Your task to perform on an android device: set the timer Image 0: 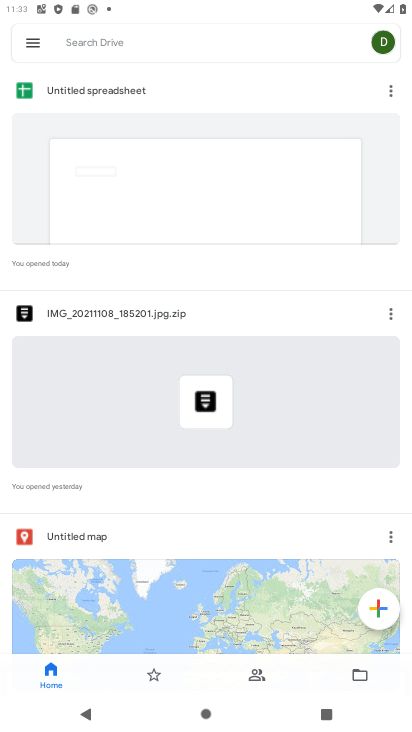
Step 0: press home button
Your task to perform on an android device: set the timer Image 1: 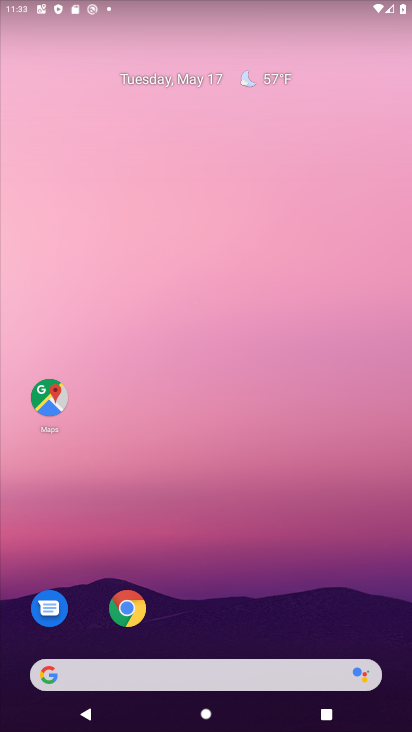
Step 1: drag from (281, 563) to (215, 84)
Your task to perform on an android device: set the timer Image 2: 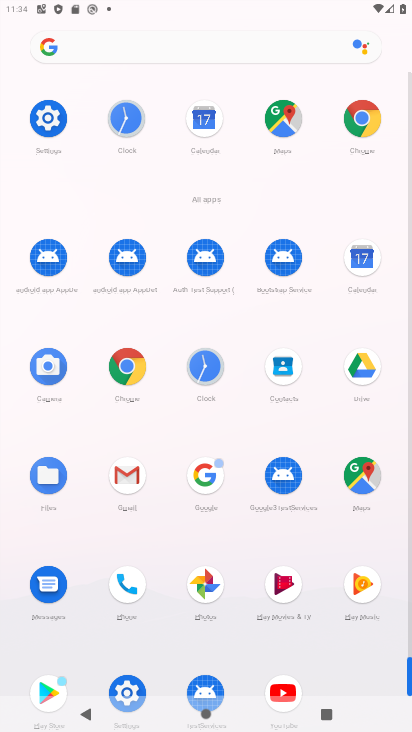
Step 2: click (128, 120)
Your task to perform on an android device: set the timer Image 3: 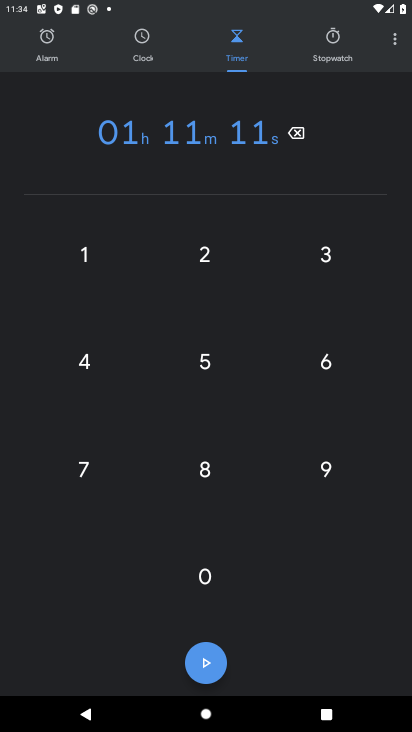
Step 3: task complete